Your task to perform on an android device: Go to privacy settings Image 0: 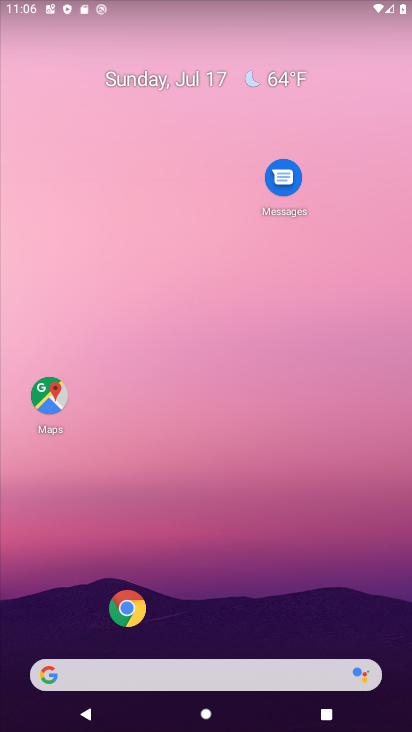
Step 0: drag from (79, 681) to (319, 42)
Your task to perform on an android device: Go to privacy settings Image 1: 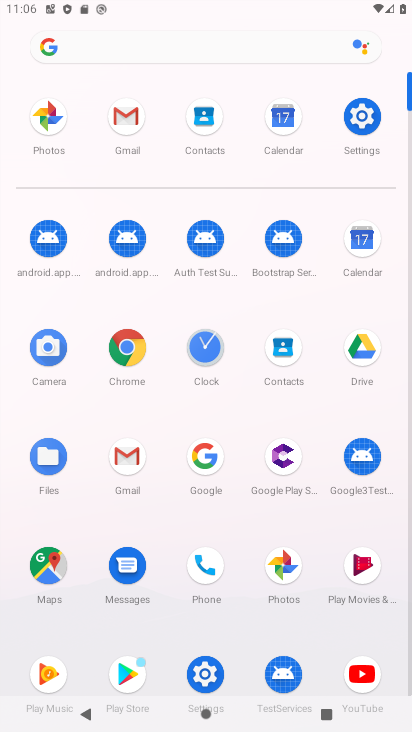
Step 1: click (197, 681)
Your task to perform on an android device: Go to privacy settings Image 2: 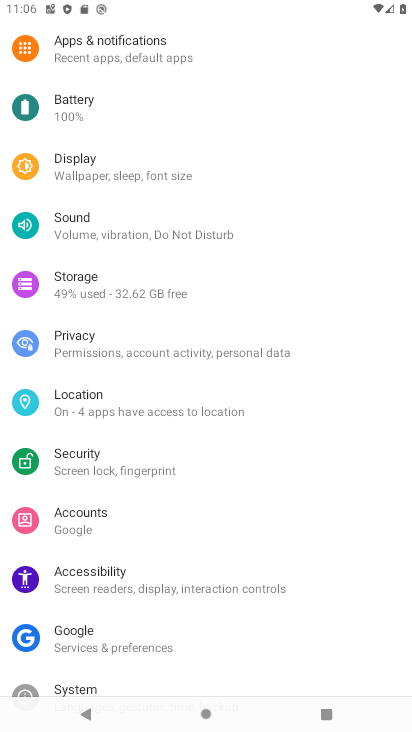
Step 2: click (92, 346)
Your task to perform on an android device: Go to privacy settings Image 3: 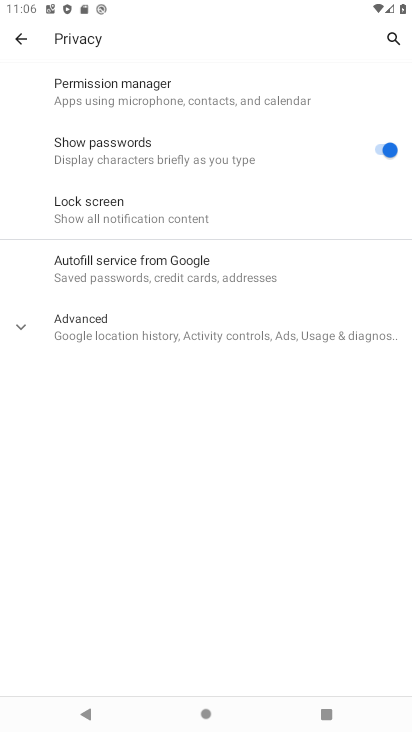
Step 3: task complete